Your task to perform on an android device: Open eBay Image 0: 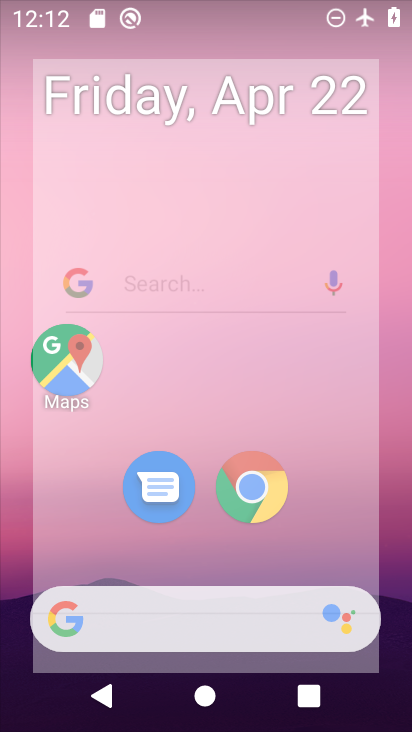
Step 0: drag from (341, 437) to (379, 152)
Your task to perform on an android device: Open eBay Image 1: 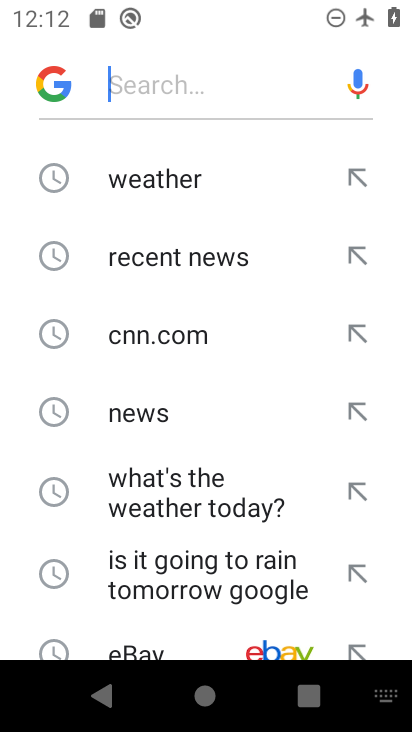
Step 1: press home button
Your task to perform on an android device: Open eBay Image 2: 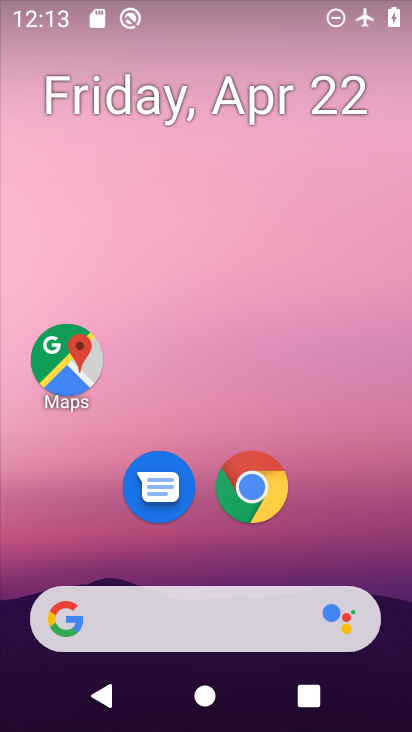
Step 2: drag from (311, 495) to (331, 86)
Your task to perform on an android device: Open eBay Image 3: 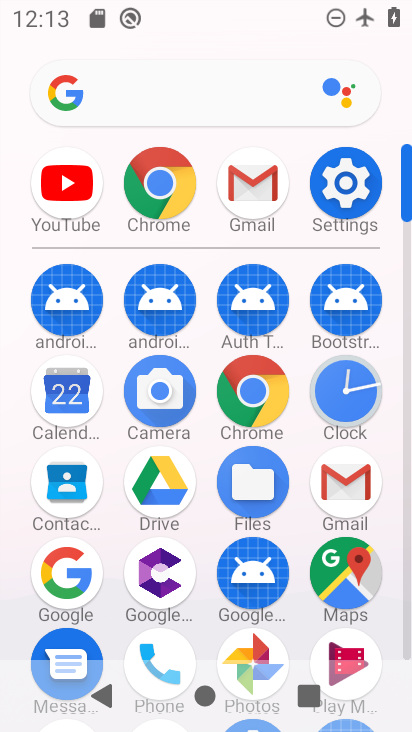
Step 3: click (249, 387)
Your task to perform on an android device: Open eBay Image 4: 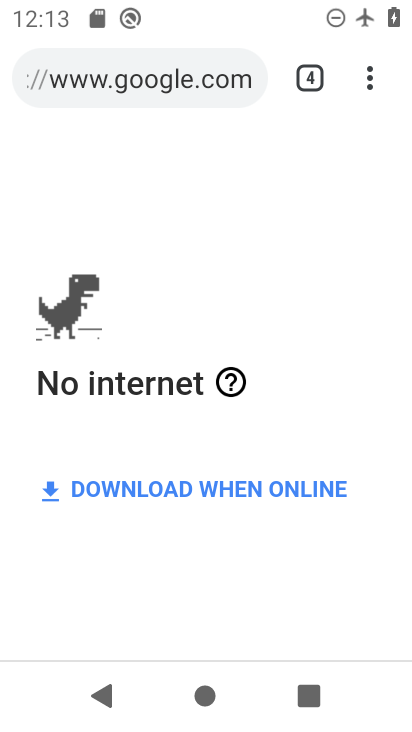
Step 4: click (360, 75)
Your task to perform on an android device: Open eBay Image 5: 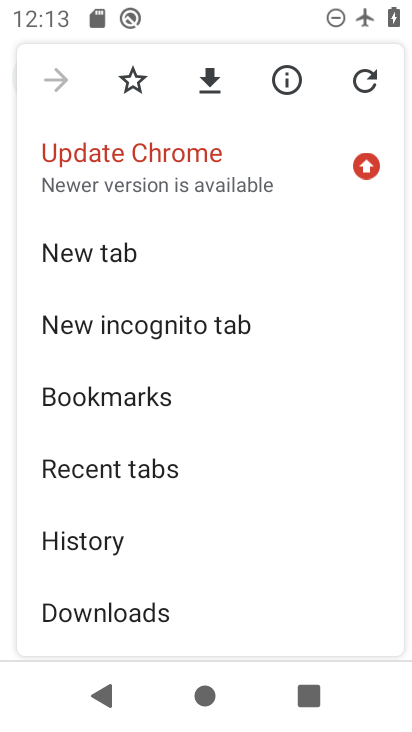
Step 5: click (168, 261)
Your task to perform on an android device: Open eBay Image 6: 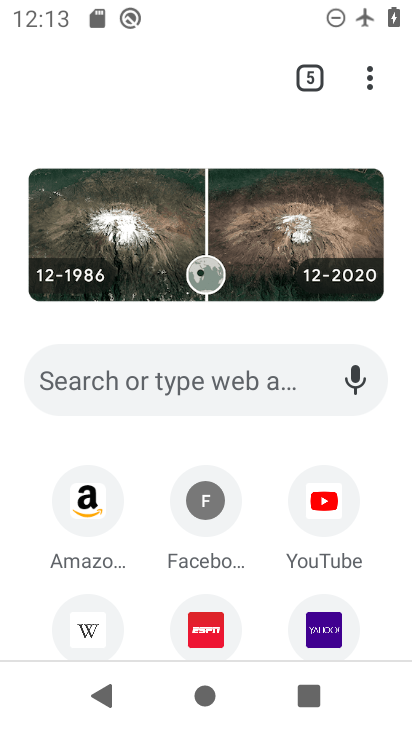
Step 6: click (223, 399)
Your task to perform on an android device: Open eBay Image 7: 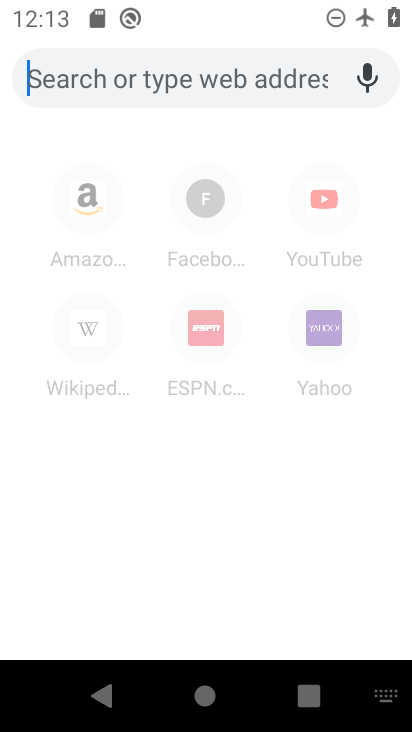
Step 7: type " eBay"
Your task to perform on an android device: Open eBay Image 8: 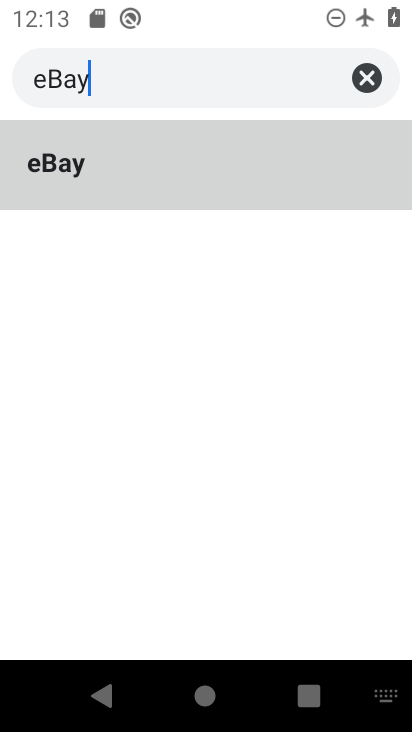
Step 8: click (188, 159)
Your task to perform on an android device: Open eBay Image 9: 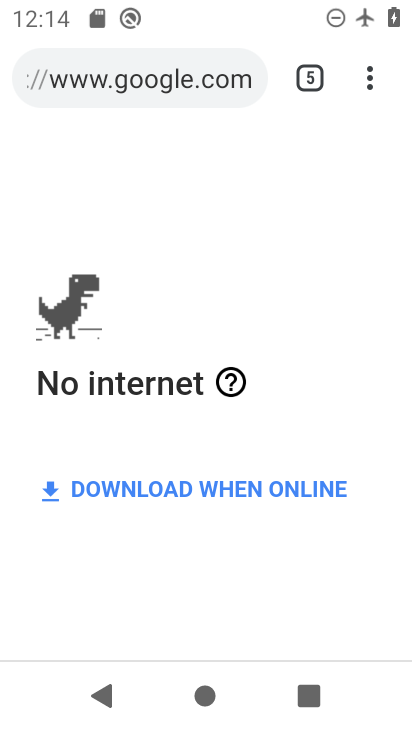
Step 9: task complete